Your task to perform on an android device: Open calendar and show me the first week of next month Image 0: 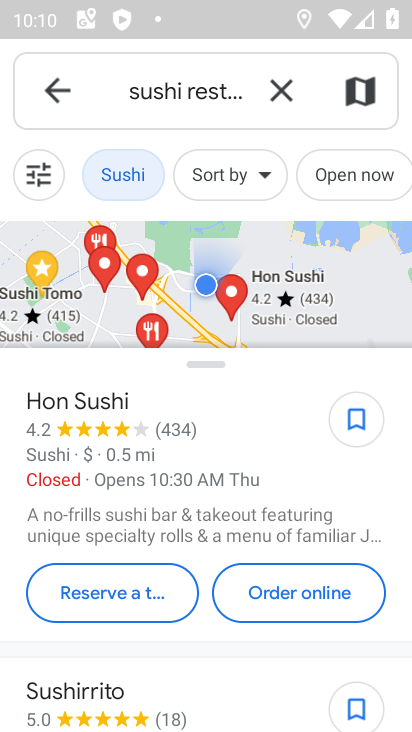
Step 0: press home button
Your task to perform on an android device: Open calendar and show me the first week of next month Image 1: 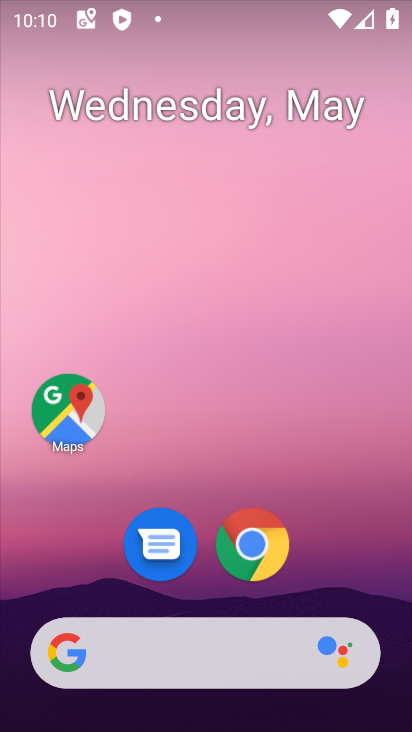
Step 1: drag from (234, 652) to (266, 182)
Your task to perform on an android device: Open calendar and show me the first week of next month Image 2: 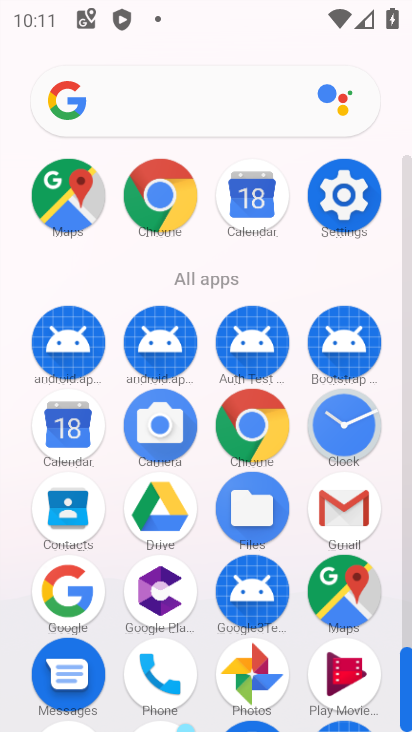
Step 2: click (60, 443)
Your task to perform on an android device: Open calendar and show me the first week of next month Image 3: 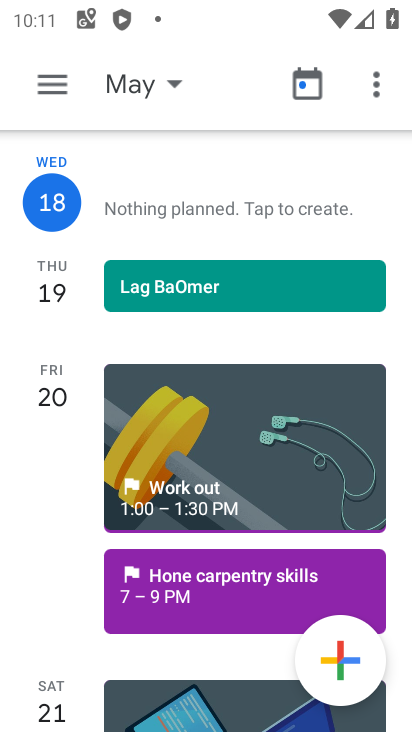
Step 3: click (170, 85)
Your task to perform on an android device: Open calendar and show me the first week of next month Image 4: 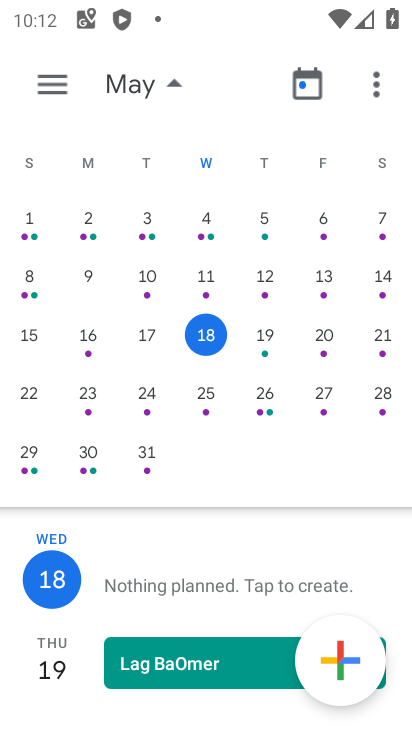
Step 4: drag from (356, 343) to (64, 351)
Your task to perform on an android device: Open calendar and show me the first week of next month Image 5: 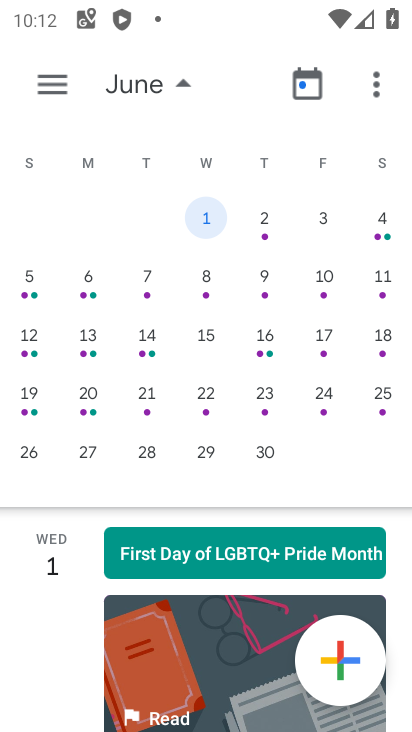
Step 5: click (330, 221)
Your task to perform on an android device: Open calendar and show me the first week of next month Image 6: 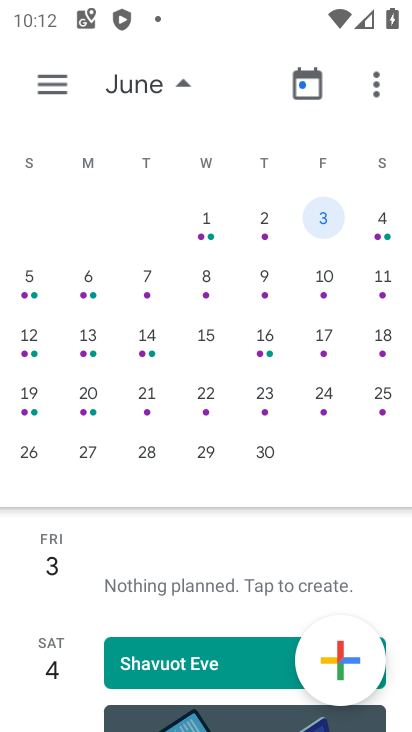
Step 6: click (60, 80)
Your task to perform on an android device: Open calendar and show me the first week of next month Image 7: 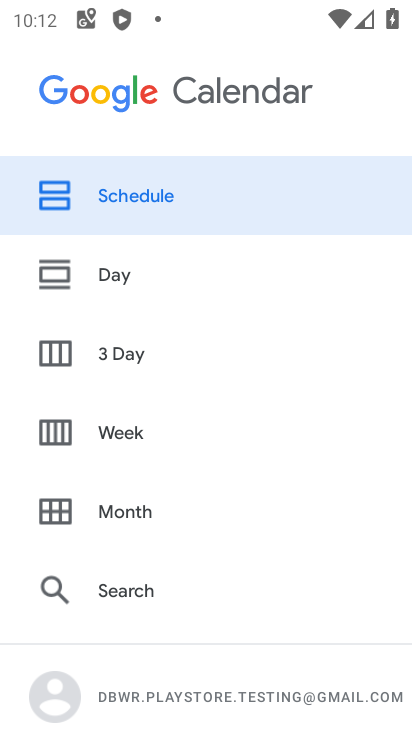
Step 7: click (139, 431)
Your task to perform on an android device: Open calendar and show me the first week of next month Image 8: 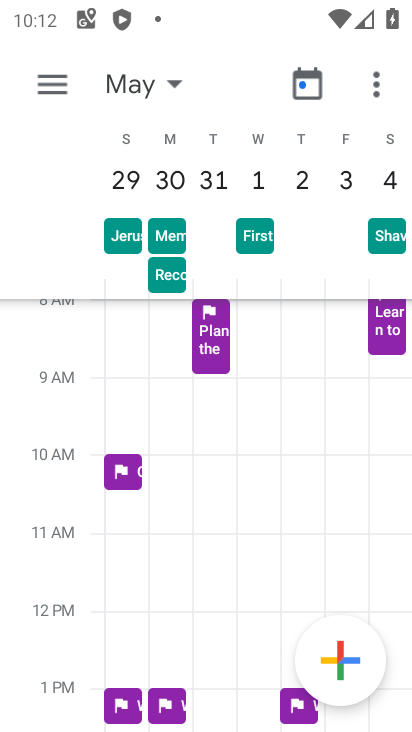
Step 8: task complete